Your task to perform on an android device: Go to ESPN.com Image 0: 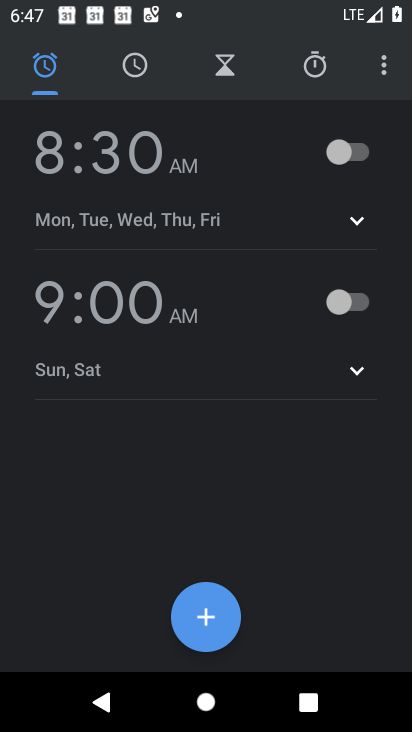
Step 0: press home button
Your task to perform on an android device: Go to ESPN.com Image 1: 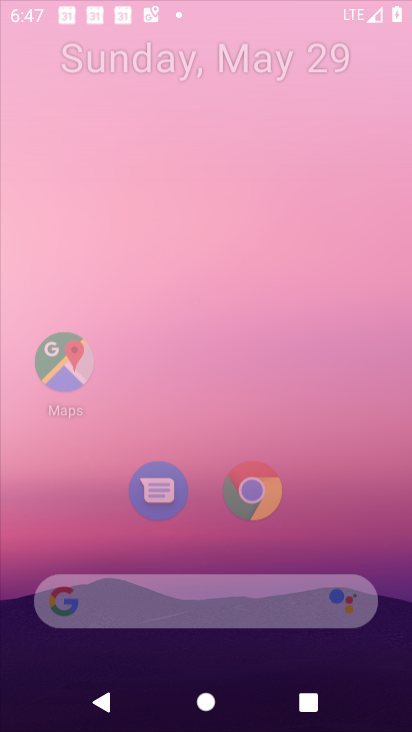
Step 1: drag from (367, 602) to (327, 56)
Your task to perform on an android device: Go to ESPN.com Image 2: 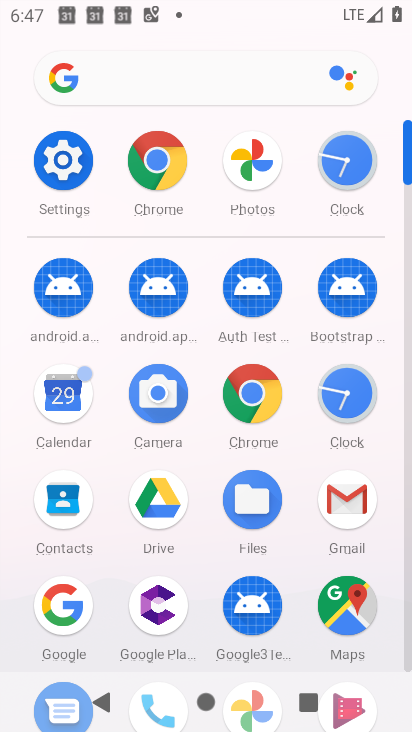
Step 2: click (86, 590)
Your task to perform on an android device: Go to ESPN.com Image 3: 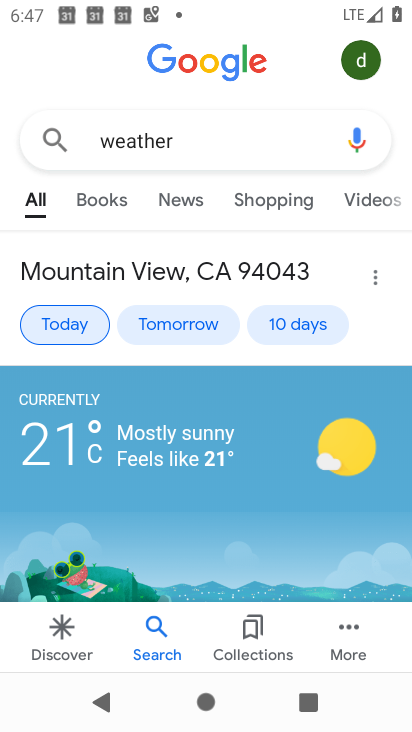
Step 3: press back button
Your task to perform on an android device: Go to ESPN.com Image 4: 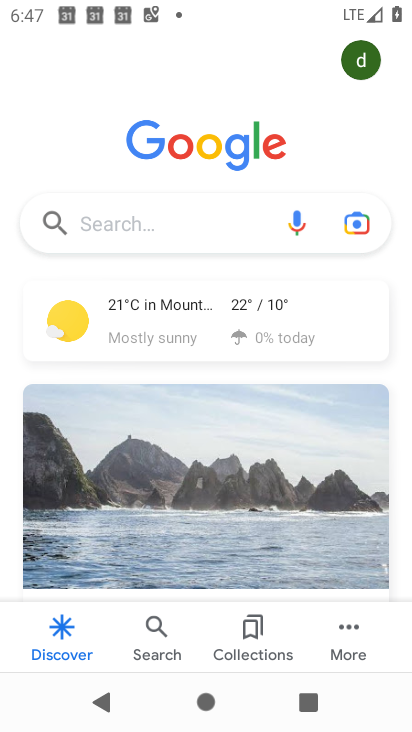
Step 4: click (151, 202)
Your task to perform on an android device: Go to ESPN.com Image 5: 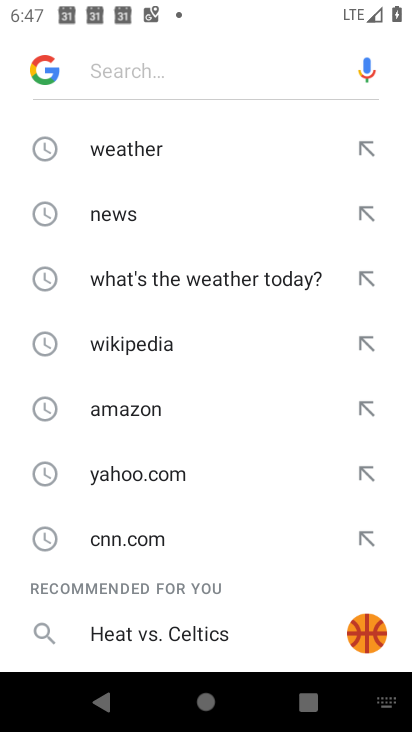
Step 5: drag from (140, 547) to (212, 148)
Your task to perform on an android device: Go to ESPN.com Image 6: 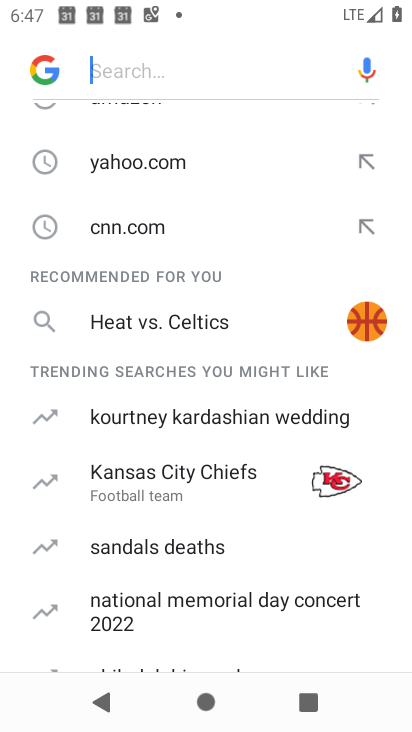
Step 6: drag from (207, 241) to (209, 679)
Your task to perform on an android device: Go to ESPN.com Image 7: 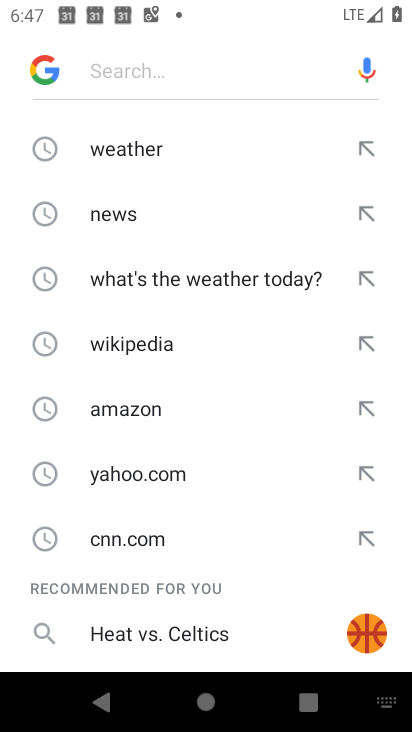
Step 7: type "espn.com"
Your task to perform on an android device: Go to ESPN.com Image 8: 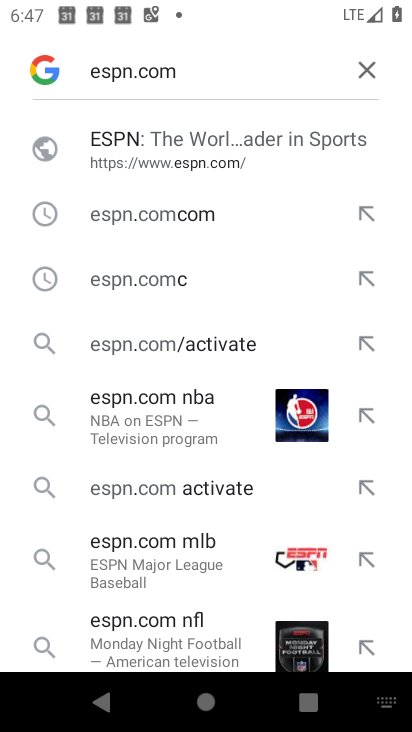
Step 8: click (236, 168)
Your task to perform on an android device: Go to ESPN.com Image 9: 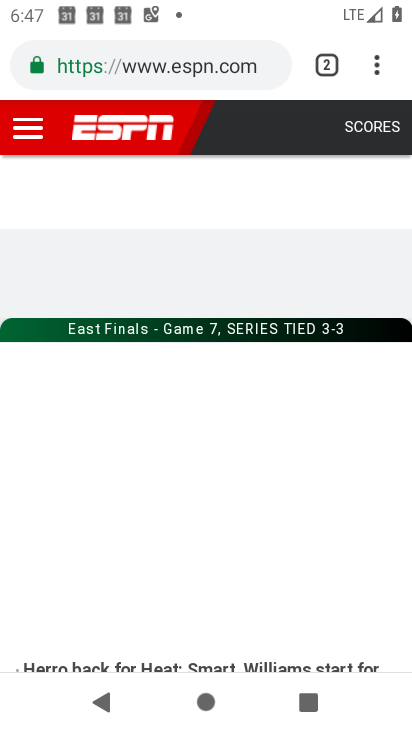
Step 9: task complete